Your task to perform on an android device: Open my contact list Image 0: 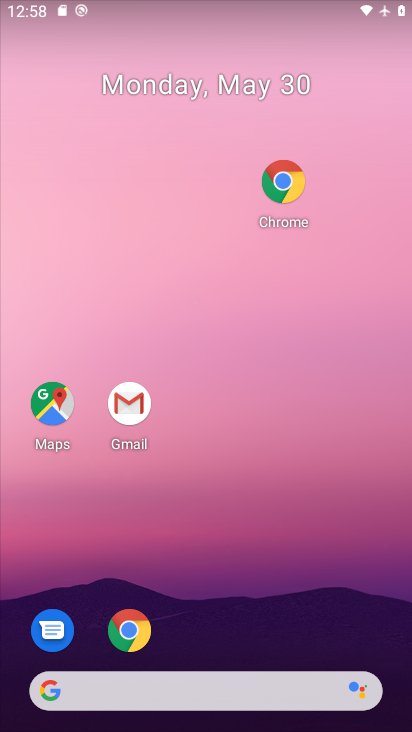
Step 0: drag from (245, 628) to (177, 101)
Your task to perform on an android device: Open my contact list Image 1: 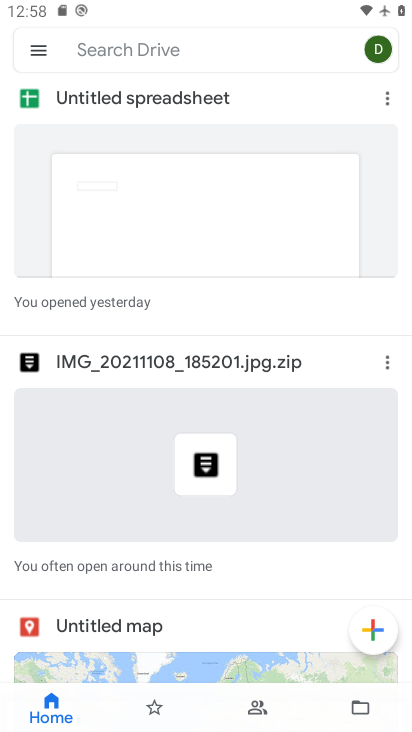
Step 1: press home button
Your task to perform on an android device: Open my contact list Image 2: 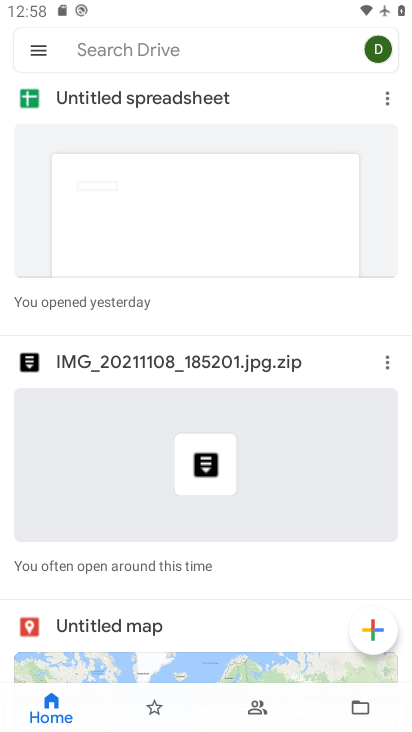
Step 2: press home button
Your task to perform on an android device: Open my contact list Image 3: 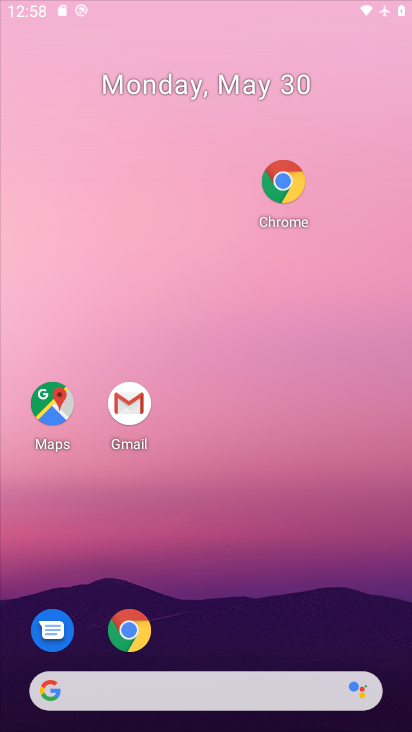
Step 3: press home button
Your task to perform on an android device: Open my contact list Image 4: 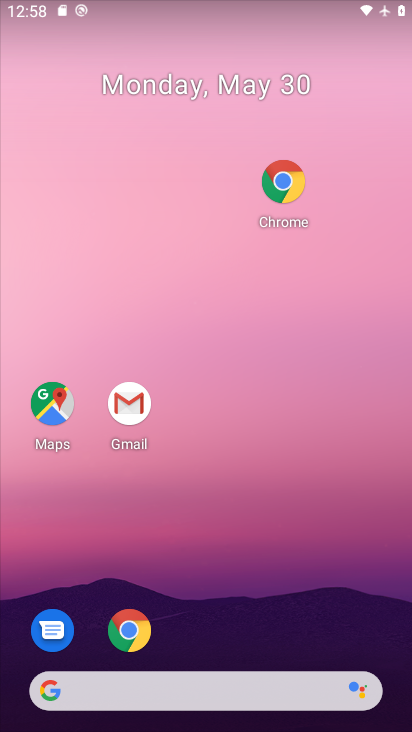
Step 4: drag from (229, 518) to (179, 160)
Your task to perform on an android device: Open my contact list Image 5: 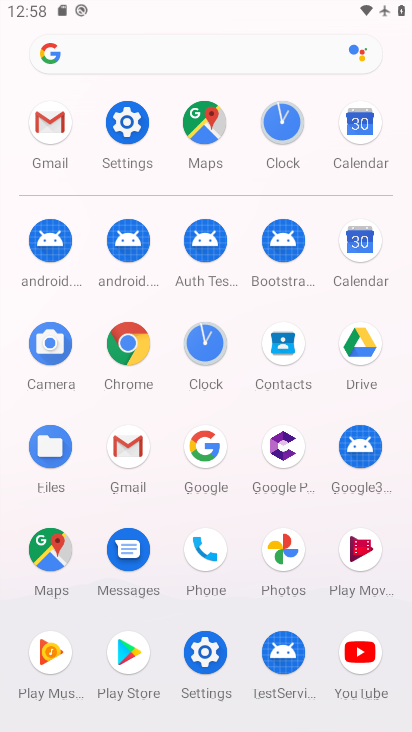
Step 5: click (286, 344)
Your task to perform on an android device: Open my contact list Image 6: 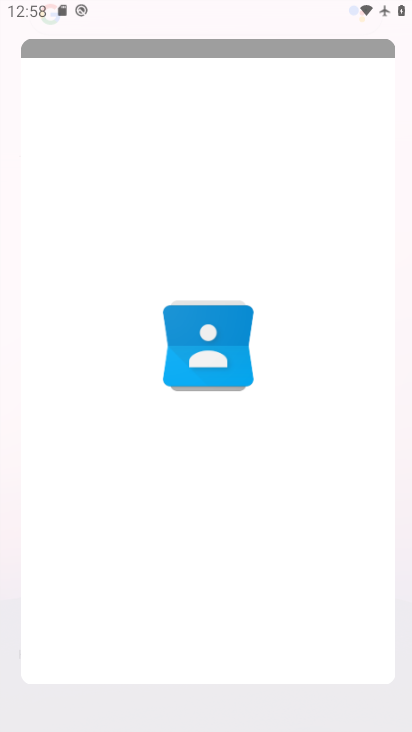
Step 6: click (296, 339)
Your task to perform on an android device: Open my contact list Image 7: 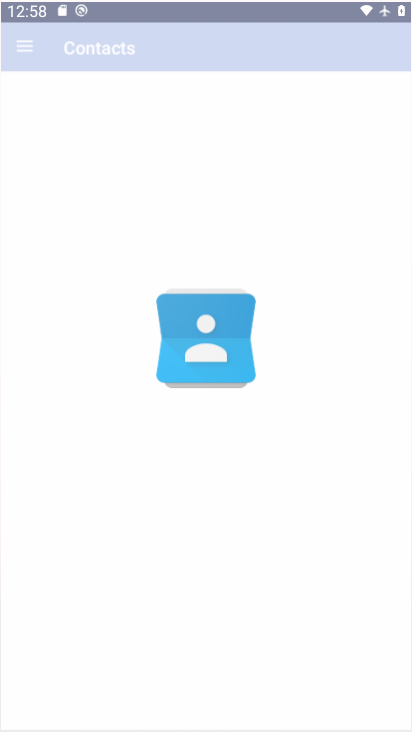
Step 7: click (297, 338)
Your task to perform on an android device: Open my contact list Image 8: 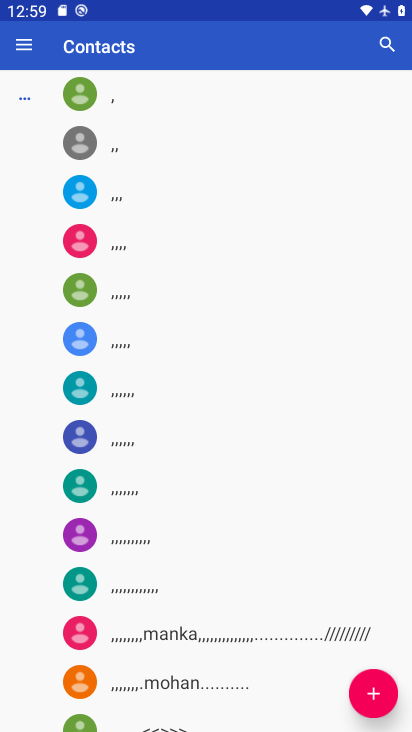
Step 8: task complete